Your task to perform on an android device: How big is the sun? Image 0: 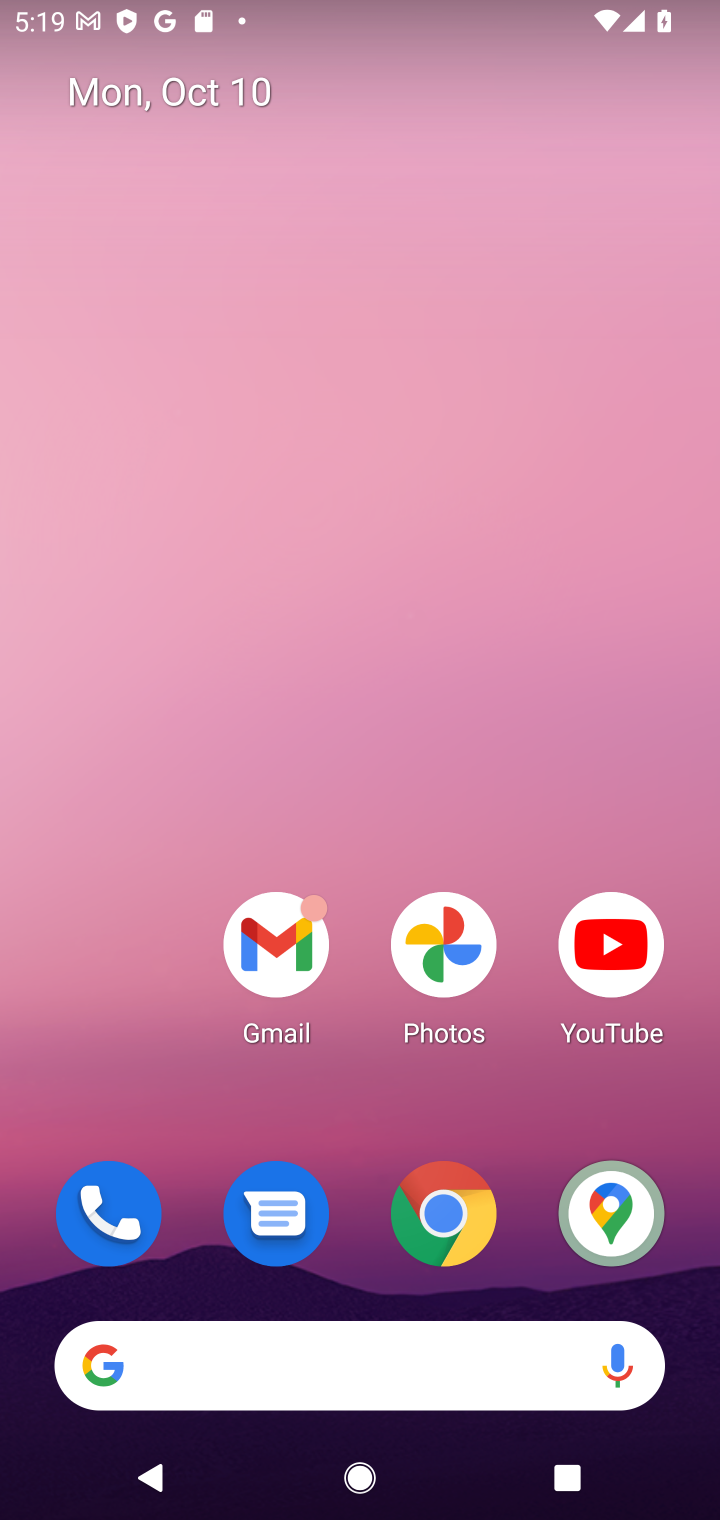
Step 0: click (299, 1351)
Your task to perform on an android device: How big is the sun? Image 1: 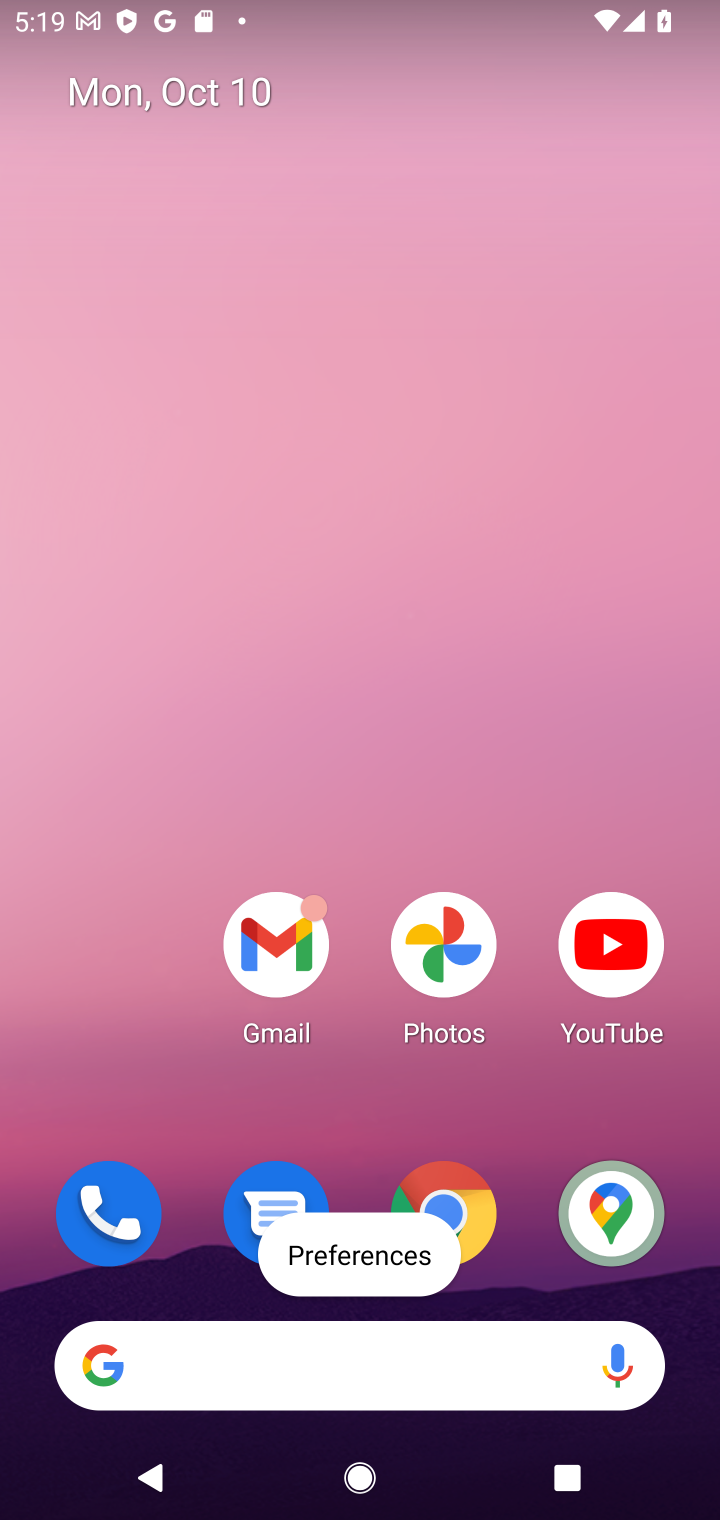
Step 1: click (299, 1353)
Your task to perform on an android device: How big is the sun? Image 2: 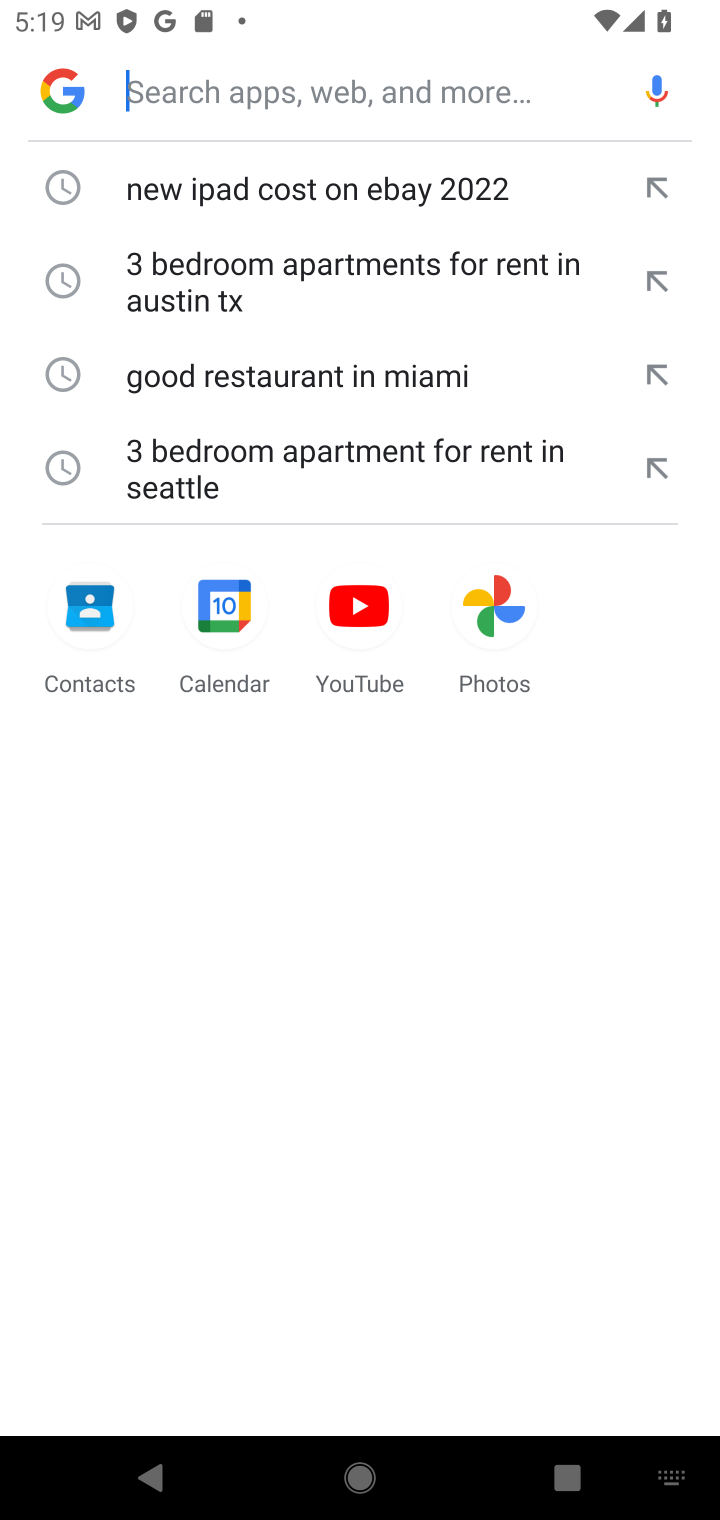
Step 2: type "How big is the sun?"
Your task to perform on an android device: How big is the sun? Image 3: 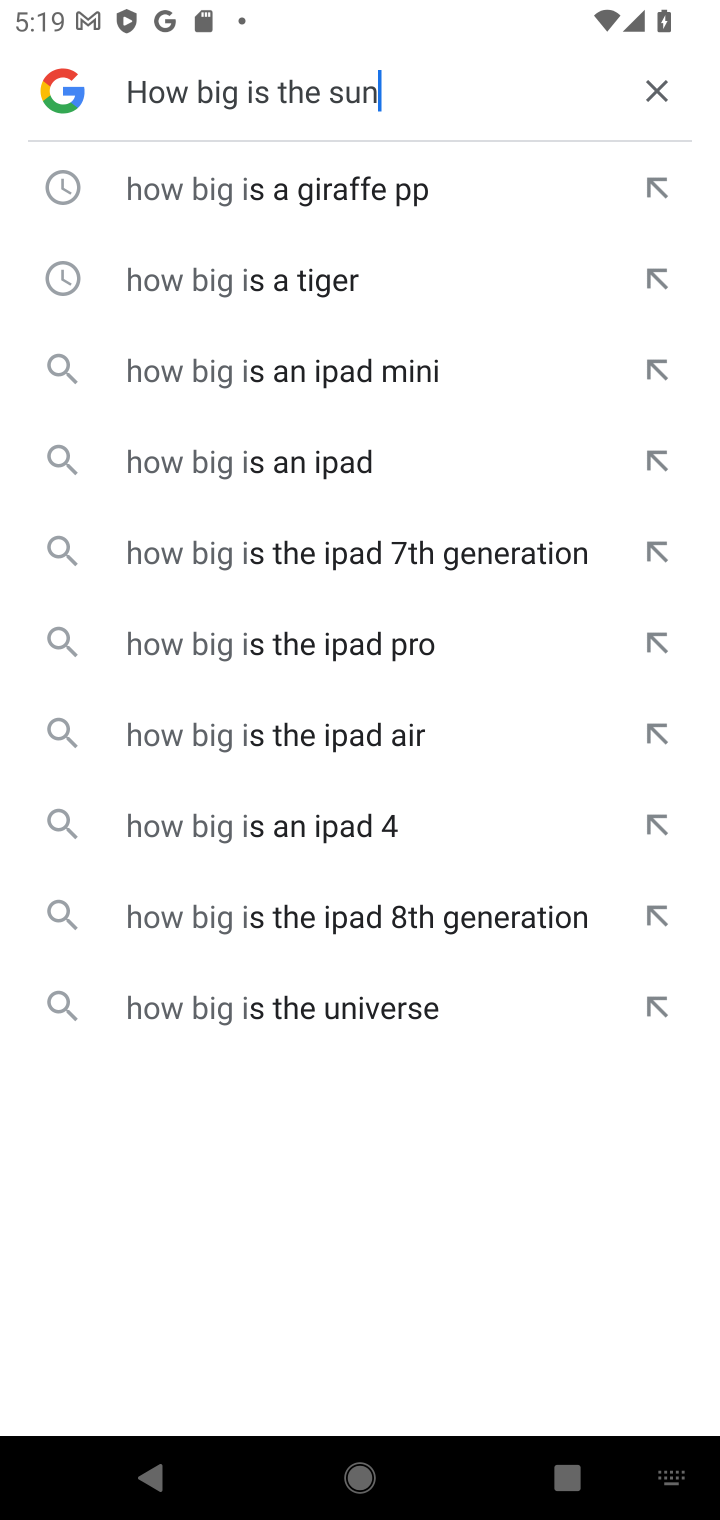
Step 3: type ""
Your task to perform on an android device: How big is the sun? Image 4: 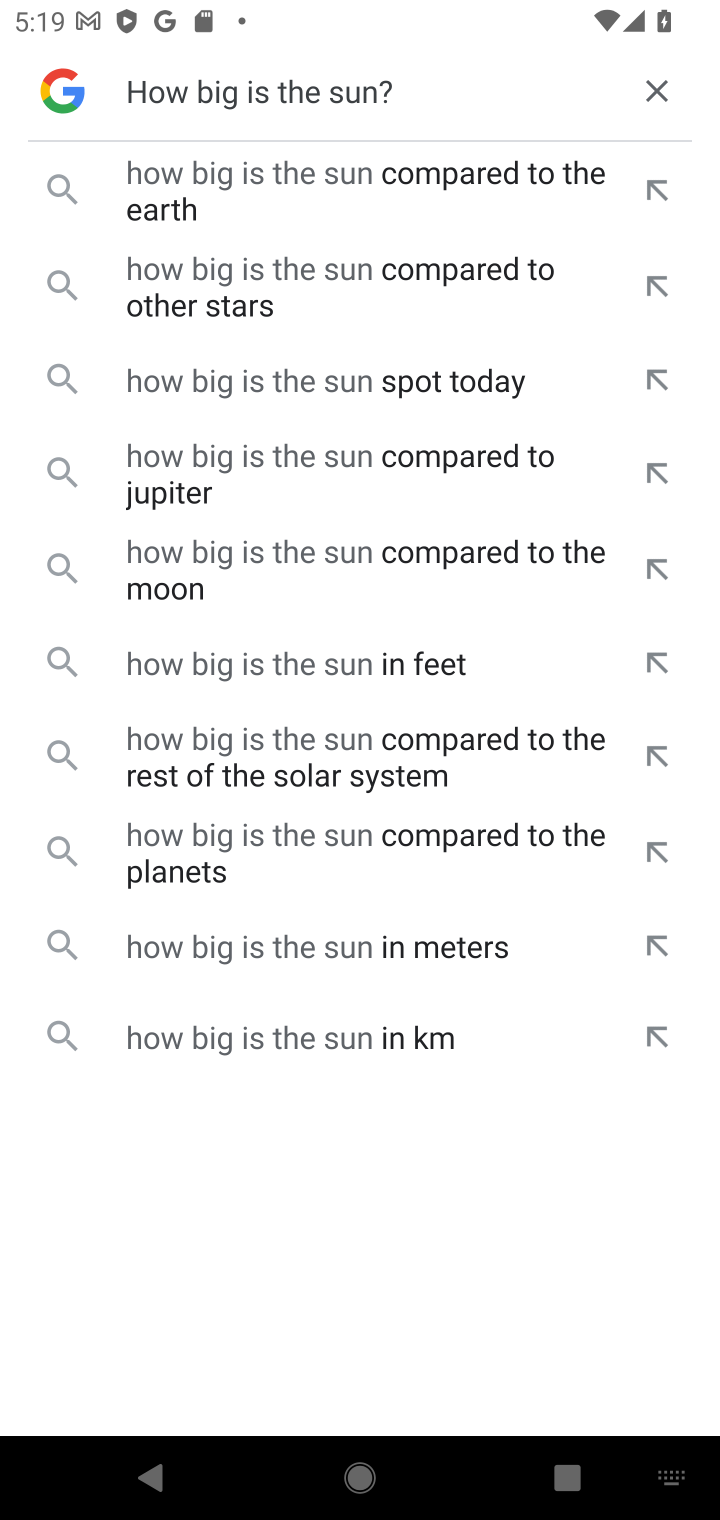
Step 4: click (332, 198)
Your task to perform on an android device: How big is the sun? Image 5: 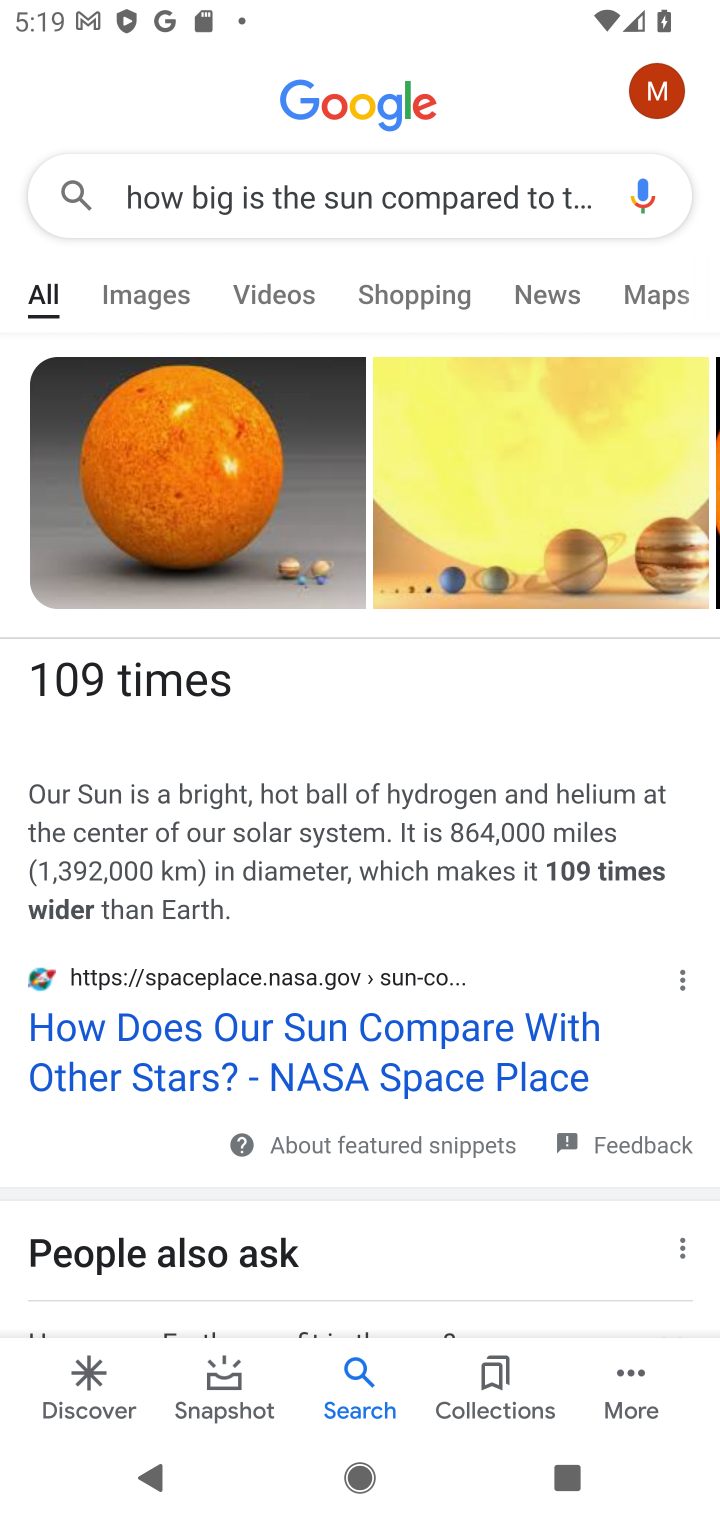
Step 5: task complete